Your task to perform on an android device: change notifications settings Image 0: 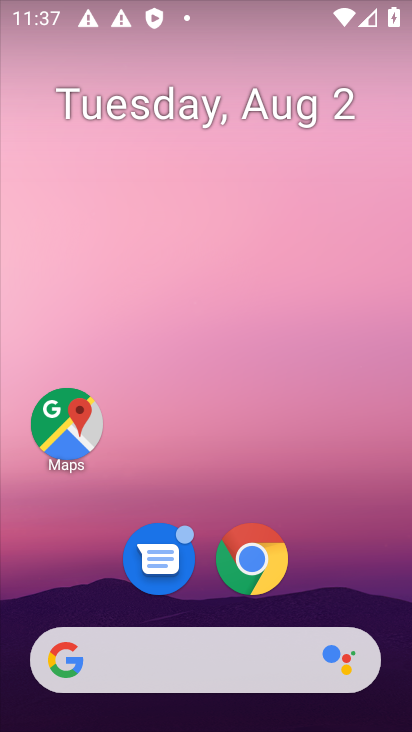
Step 0: drag from (206, 608) to (206, 129)
Your task to perform on an android device: change notifications settings Image 1: 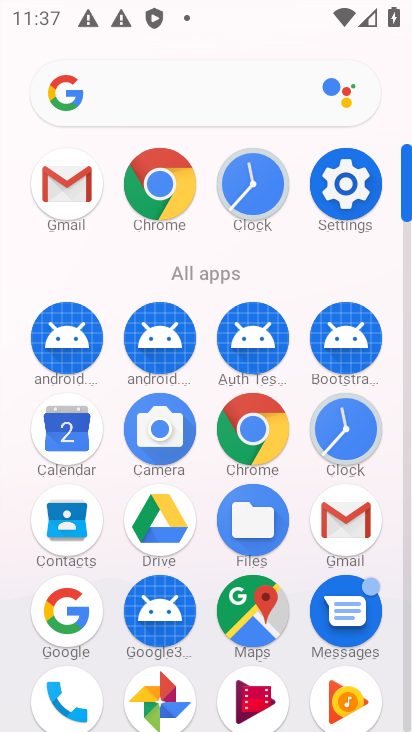
Step 1: click (348, 182)
Your task to perform on an android device: change notifications settings Image 2: 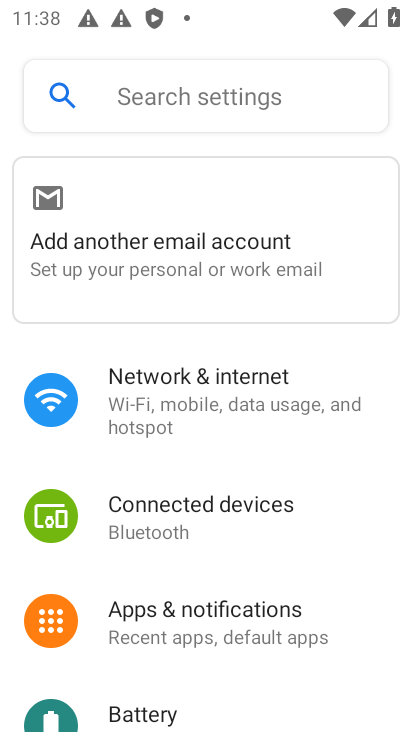
Step 2: click (240, 621)
Your task to perform on an android device: change notifications settings Image 3: 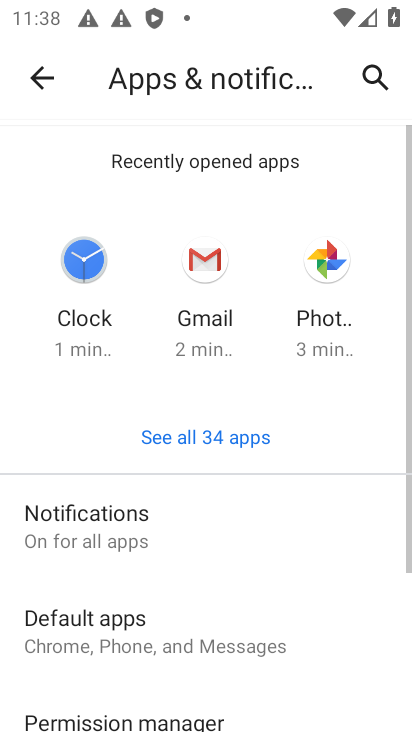
Step 3: click (57, 517)
Your task to perform on an android device: change notifications settings Image 4: 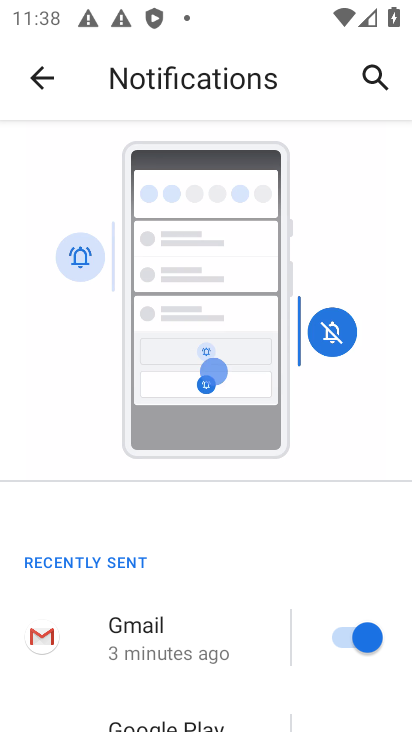
Step 4: drag from (265, 700) to (266, 312)
Your task to perform on an android device: change notifications settings Image 5: 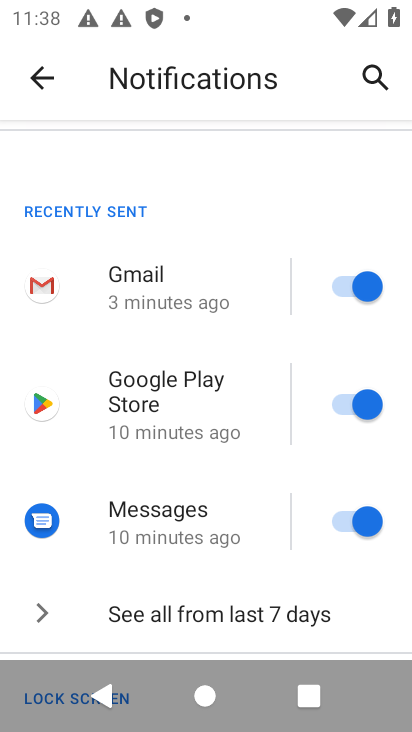
Step 5: drag from (254, 642) to (205, 256)
Your task to perform on an android device: change notifications settings Image 6: 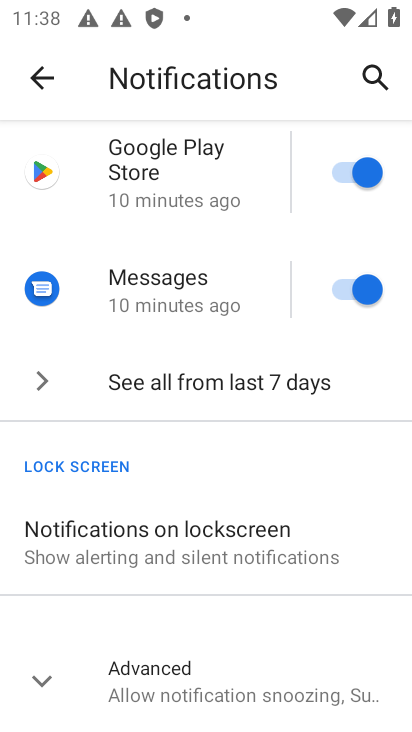
Step 6: click (140, 680)
Your task to perform on an android device: change notifications settings Image 7: 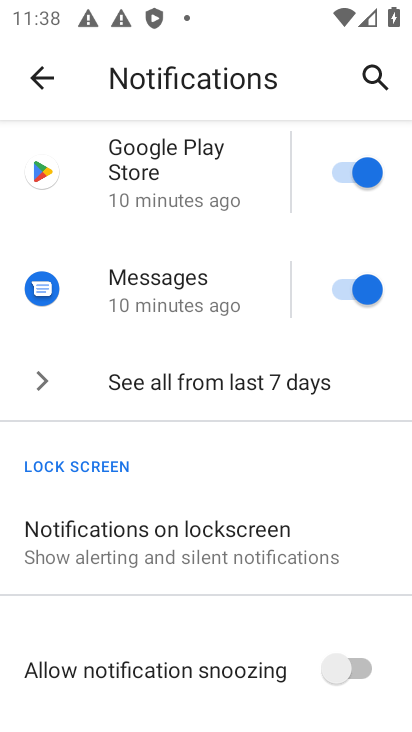
Step 7: click (352, 672)
Your task to perform on an android device: change notifications settings Image 8: 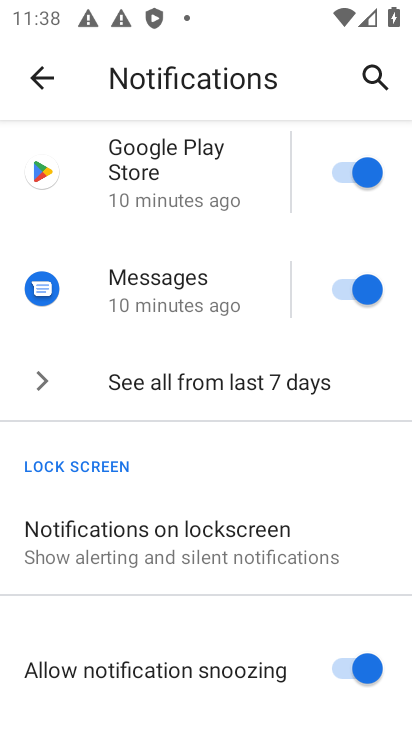
Step 8: task complete